Your task to perform on an android device: Open Youtube and go to the subscriptions tab Image 0: 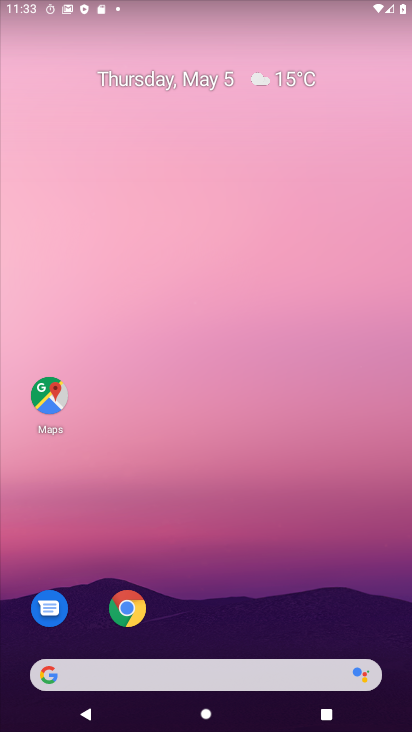
Step 0: drag from (240, 608) to (268, 31)
Your task to perform on an android device: Open Youtube and go to the subscriptions tab Image 1: 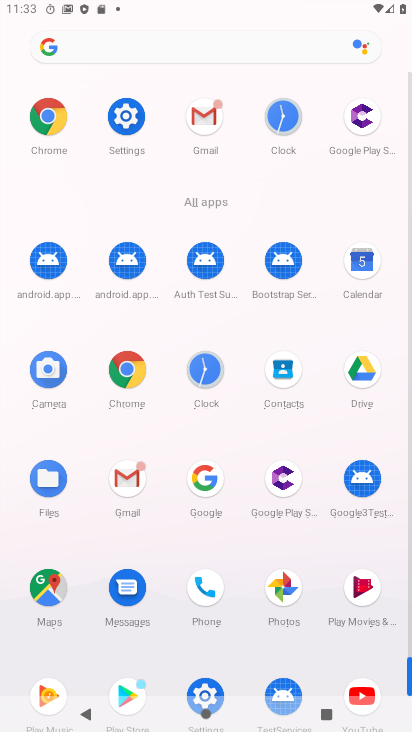
Step 1: drag from (233, 331) to (239, 222)
Your task to perform on an android device: Open Youtube and go to the subscriptions tab Image 2: 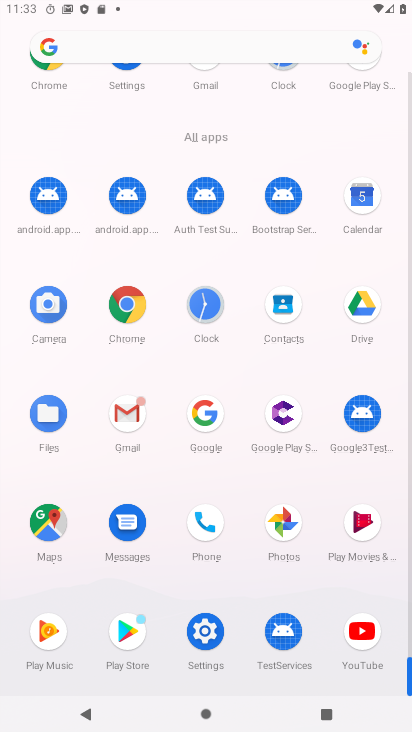
Step 2: click (363, 631)
Your task to perform on an android device: Open Youtube and go to the subscriptions tab Image 3: 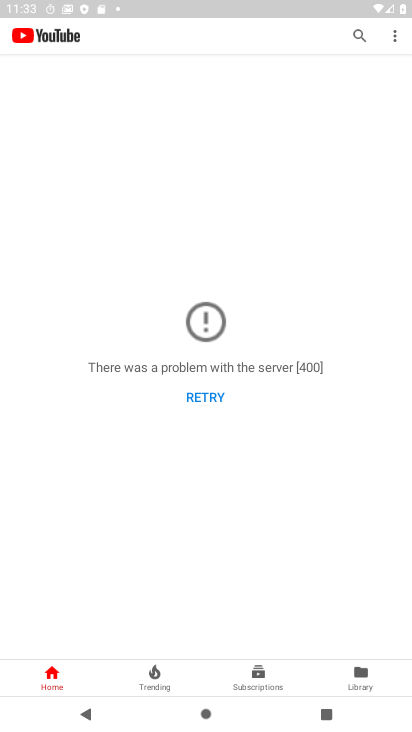
Step 3: click (218, 394)
Your task to perform on an android device: Open Youtube and go to the subscriptions tab Image 4: 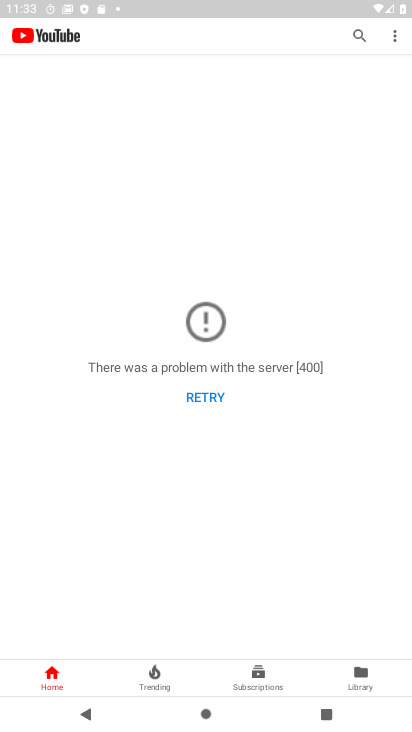
Step 4: click (265, 680)
Your task to perform on an android device: Open Youtube and go to the subscriptions tab Image 5: 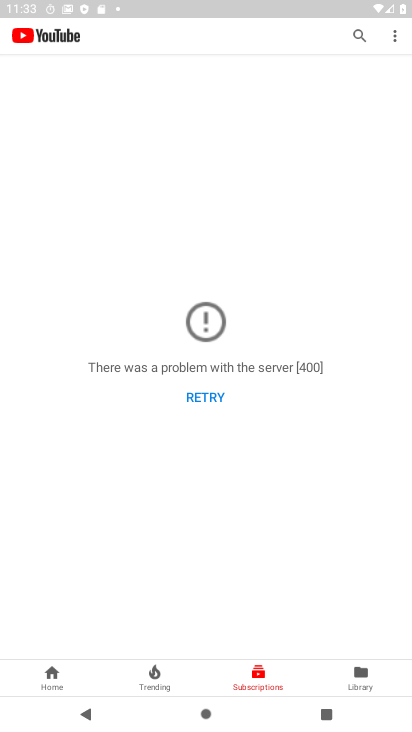
Step 5: task complete